Your task to perform on an android device: check data usage Image 0: 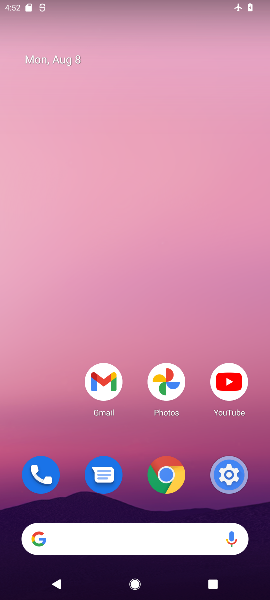
Step 0: drag from (38, 413) to (56, 90)
Your task to perform on an android device: check data usage Image 1: 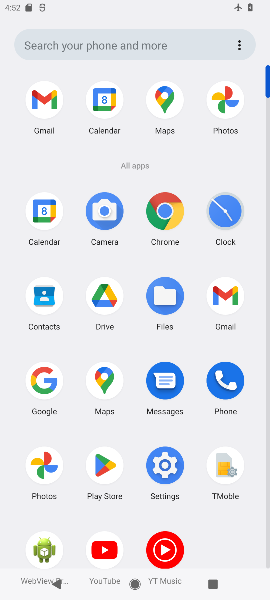
Step 1: click (175, 467)
Your task to perform on an android device: check data usage Image 2: 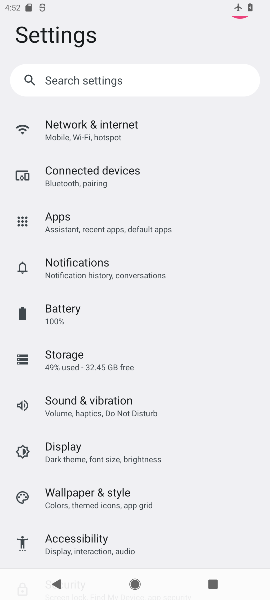
Step 2: drag from (196, 471) to (198, 331)
Your task to perform on an android device: check data usage Image 3: 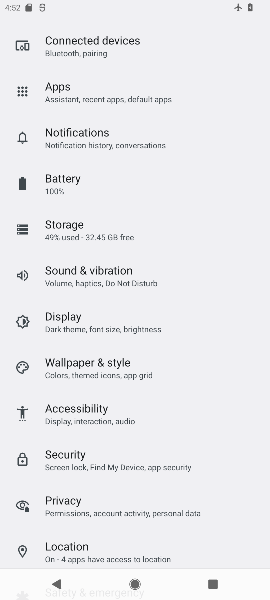
Step 3: drag from (202, 427) to (218, 280)
Your task to perform on an android device: check data usage Image 4: 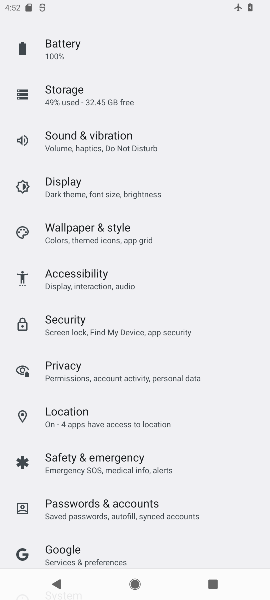
Step 4: drag from (212, 445) to (220, 278)
Your task to perform on an android device: check data usage Image 5: 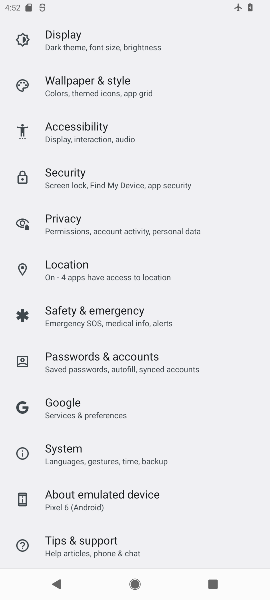
Step 5: drag from (210, 454) to (224, 265)
Your task to perform on an android device: check data usage Image 6: 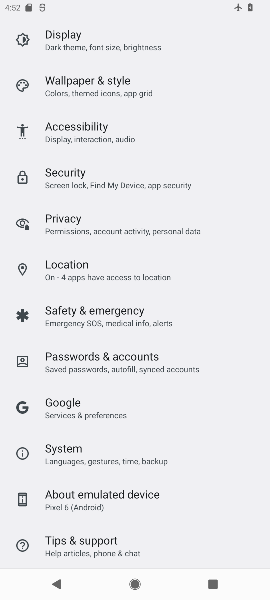
Step 6: drag from (231, 181) to (229, 378)
Your task to perform on an android device: check data usage Image 7: 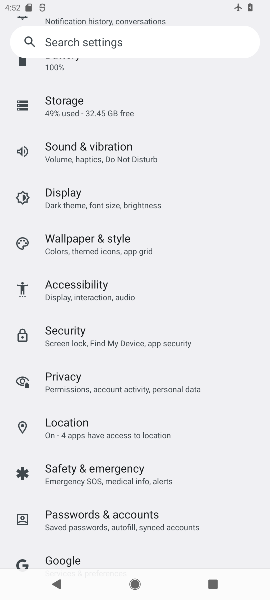
Step 7: drag from (221, 225) to (221, 370)
Your task to perform on an android device: check data usage Image 8: 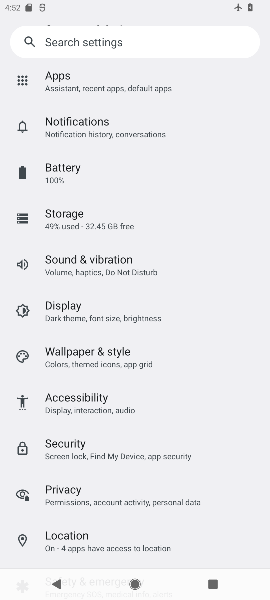
Step 8: drag from (222, 212) to (232, 371)
Your task to perform on an android device: check data usage Image 9: 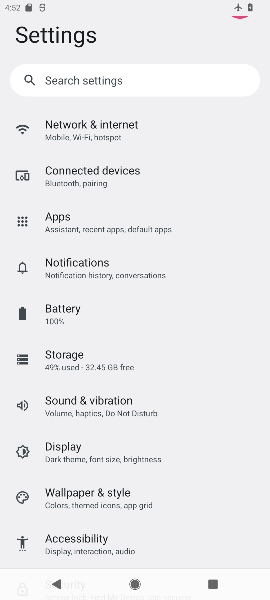
Step 9: drag from (220, 208) to (226, 328)
Your task to perform on an android device: check data usage Image 10: 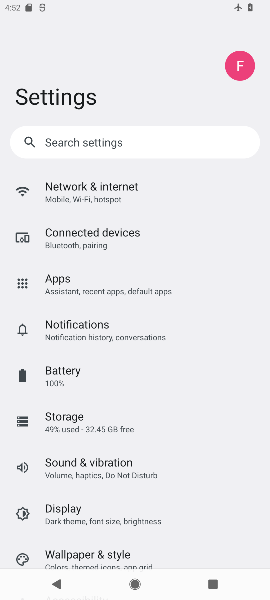
Step 10: click (149, 183)
Your task to perform on an android device: check data usage Image 11: 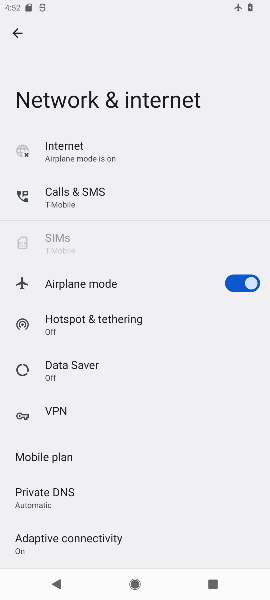
Step 11: click (93, 151)
Your task to perform on an android device: check data usage Image 12: 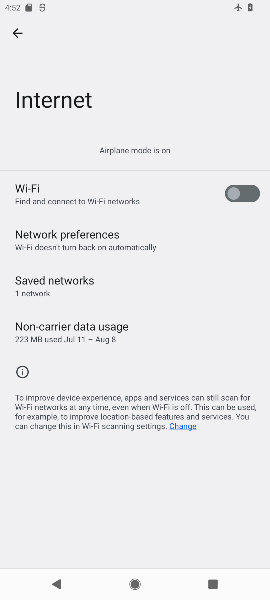
Step 12: click (86, 331)
Your task to perform on an android device: check data usage Image 13: 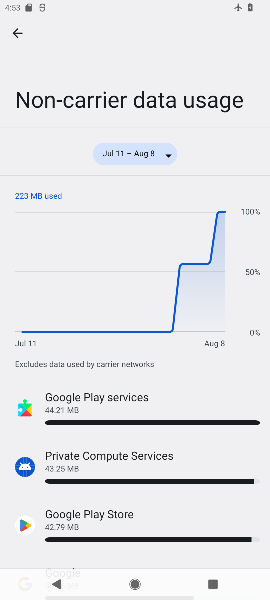
Step 13: task complete